Your task to perform on an android device: Open wifi settings Image 0: 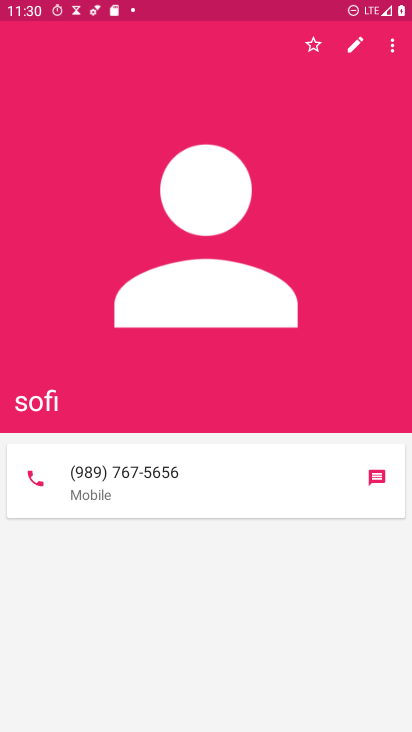
Step 0: press home button
Your task to perform on an android device: Open wifi settings Image 1: 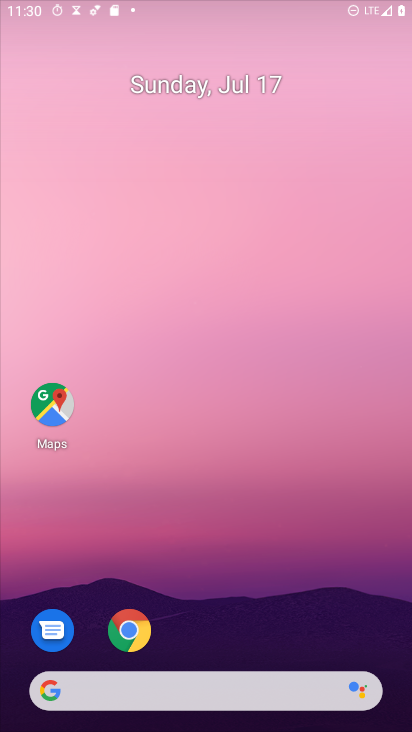
Step 1: drag from (251, 670) to (235, 47)
Your task to perform on an android device: Open wifi settings Image 2: 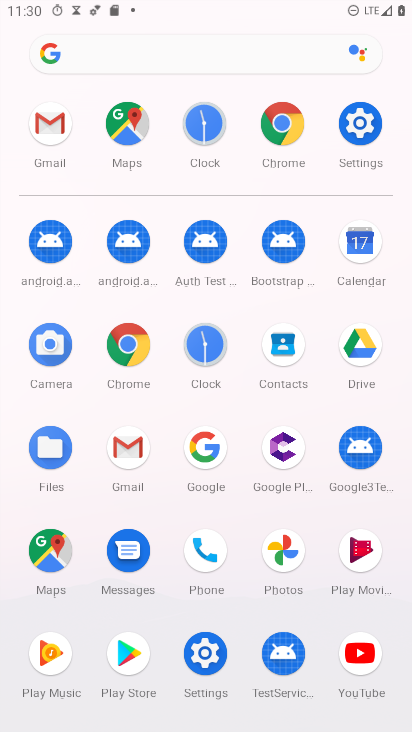
Step 2: click (359, 125)
Your task to perform on an android device: Open wifi settings Image 3: 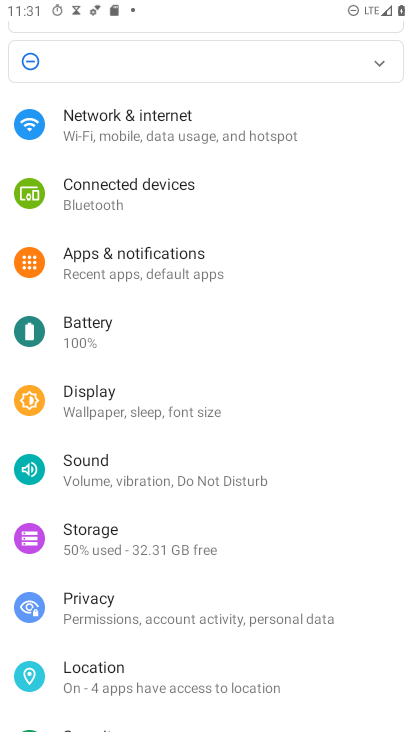
Step 3: click (79, 128)
Your task to perform on an android device: Open wifi settings Image 4: 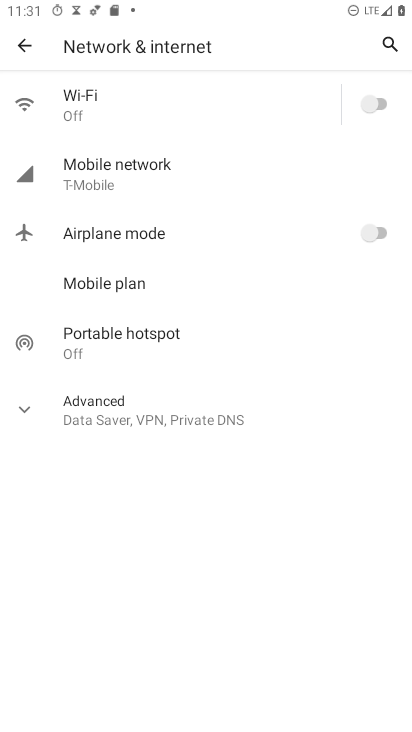
Step 4: task complete